Your task to perform on an android device: Clear the cart on amazon. Search for razer blackwidow on amazon, select the first entry, add it to the cart, then select checkout. Image 0: 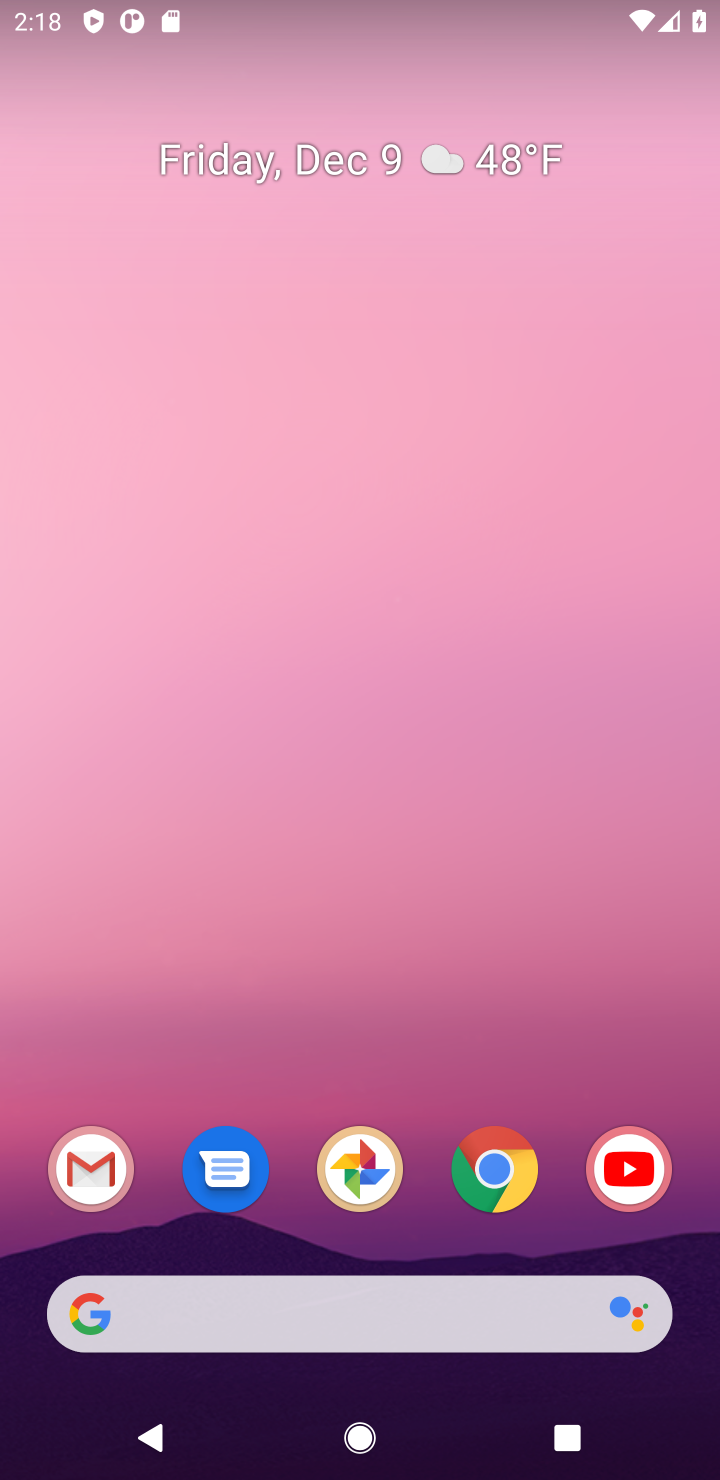
Step 0: click (498, 1177)
Your task to perform on an android device: Clear the cart on amazon. Search for razer blackwidow on amazon, select the first entry, add it to the cart, then select checkout. Image 1: 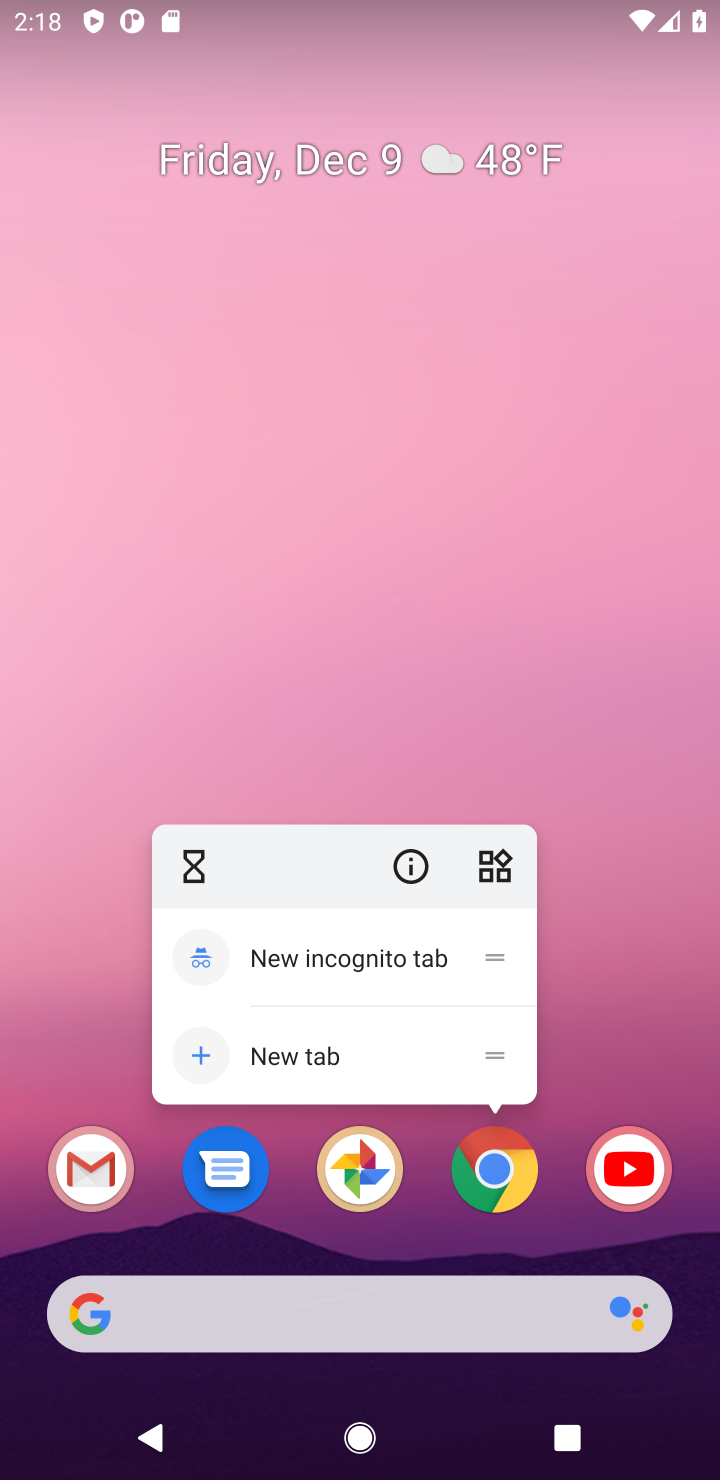
Step 1: click (498, 1177)
Your task to perform on an android device: Clear the cart on amazon. Search for razer blackwidow on amazon, select the first entry, add it to the cart, then select checkout. Image 2: 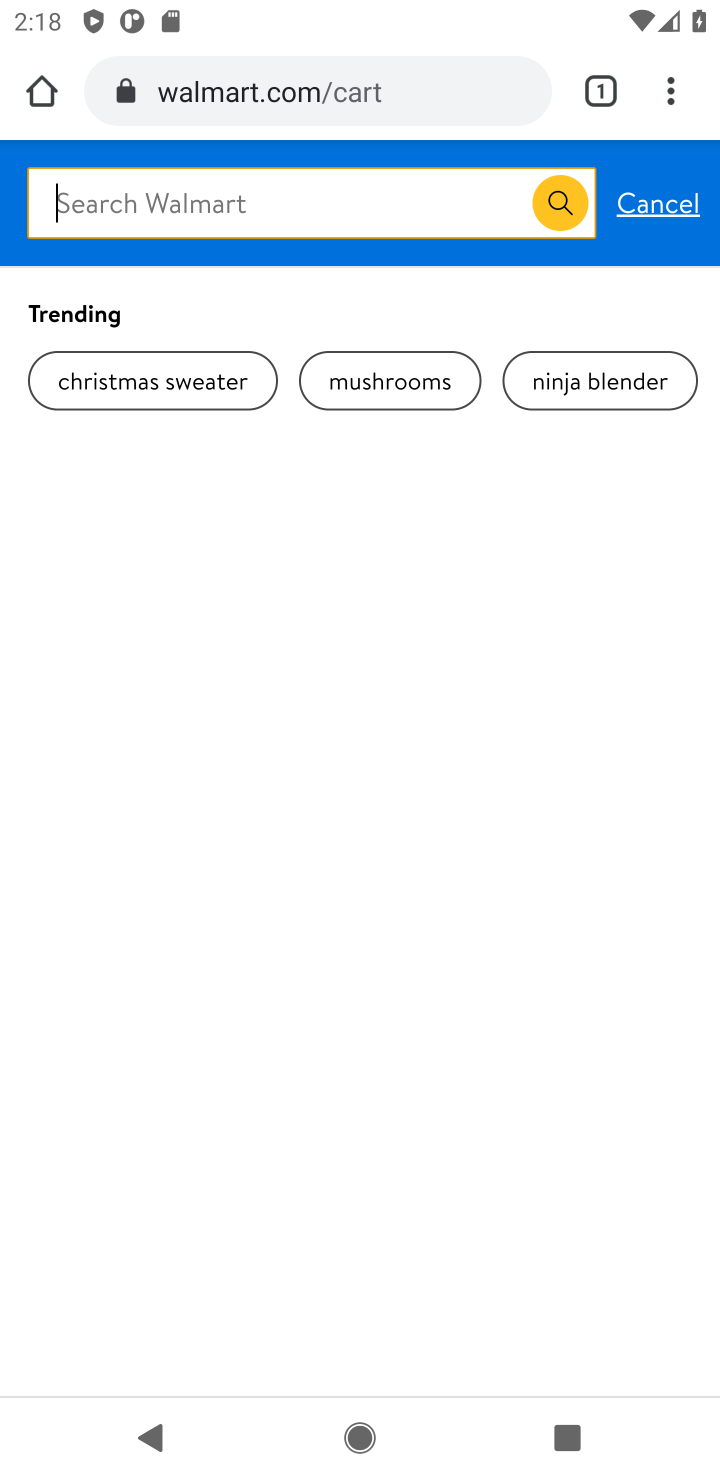
Step 2: click (252, 83)
Your task to perform on an android device: Clear the cart on amazon. Search for razer blackwidow on amazon, select the first entry, add it to the cart, then select checkout. Image 3: 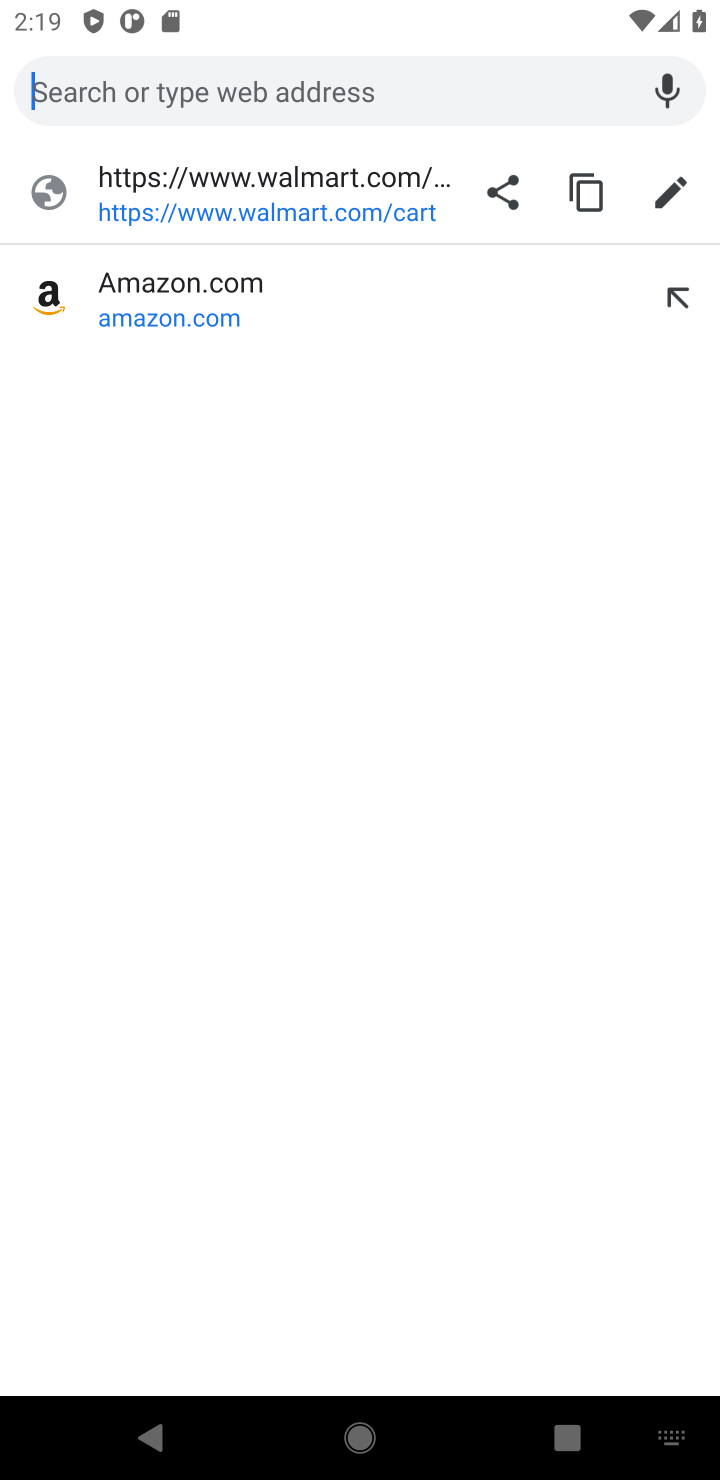
Step 3: click (221, 291)
Your task to perform on an android device: Clear the cart on amazon. Search for razer blackwidow on amazon, select the first entry, add it to the cart, then select checkout. Image 4: 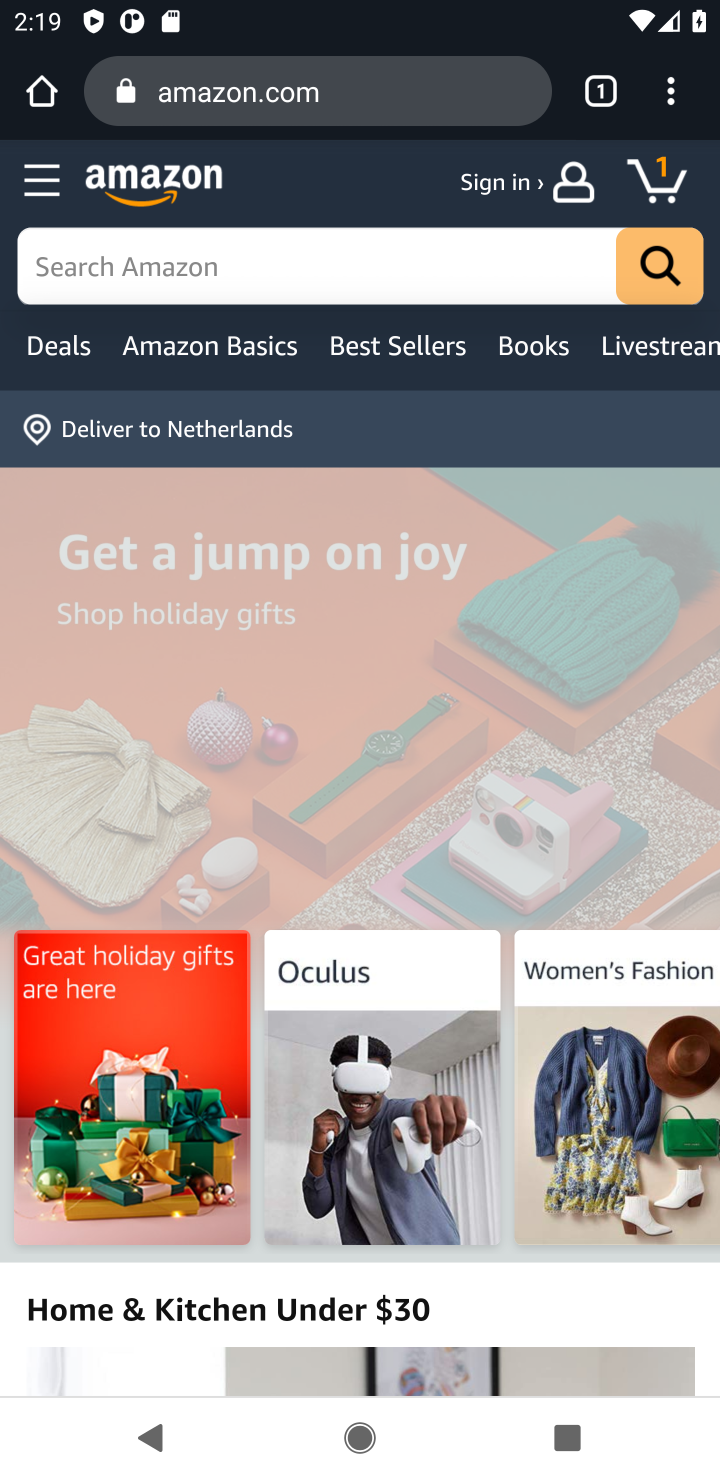
Step 4: click (668, 182)
Your task to perform on an android device: Clear the cart on amazon. Search for razer blackwidow on amazon, select the first entry, add it to the cart, then select checkout. Image 5: 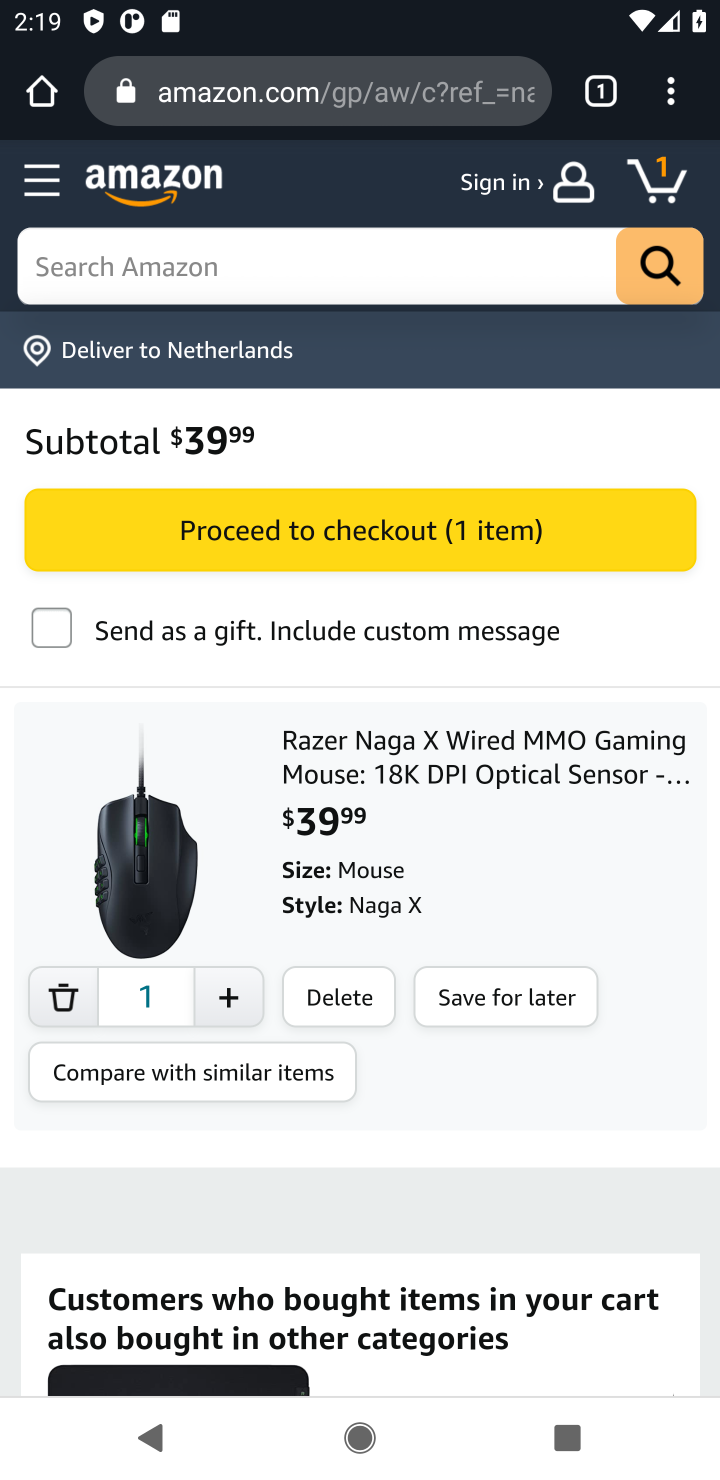
Step 5: click (340, 995)
Your task to perform on an android device: Clear the cart on amazon. Search for razer blackwidow on amazon, select the first entry, add it to the cart, then select checkout. Image 6: 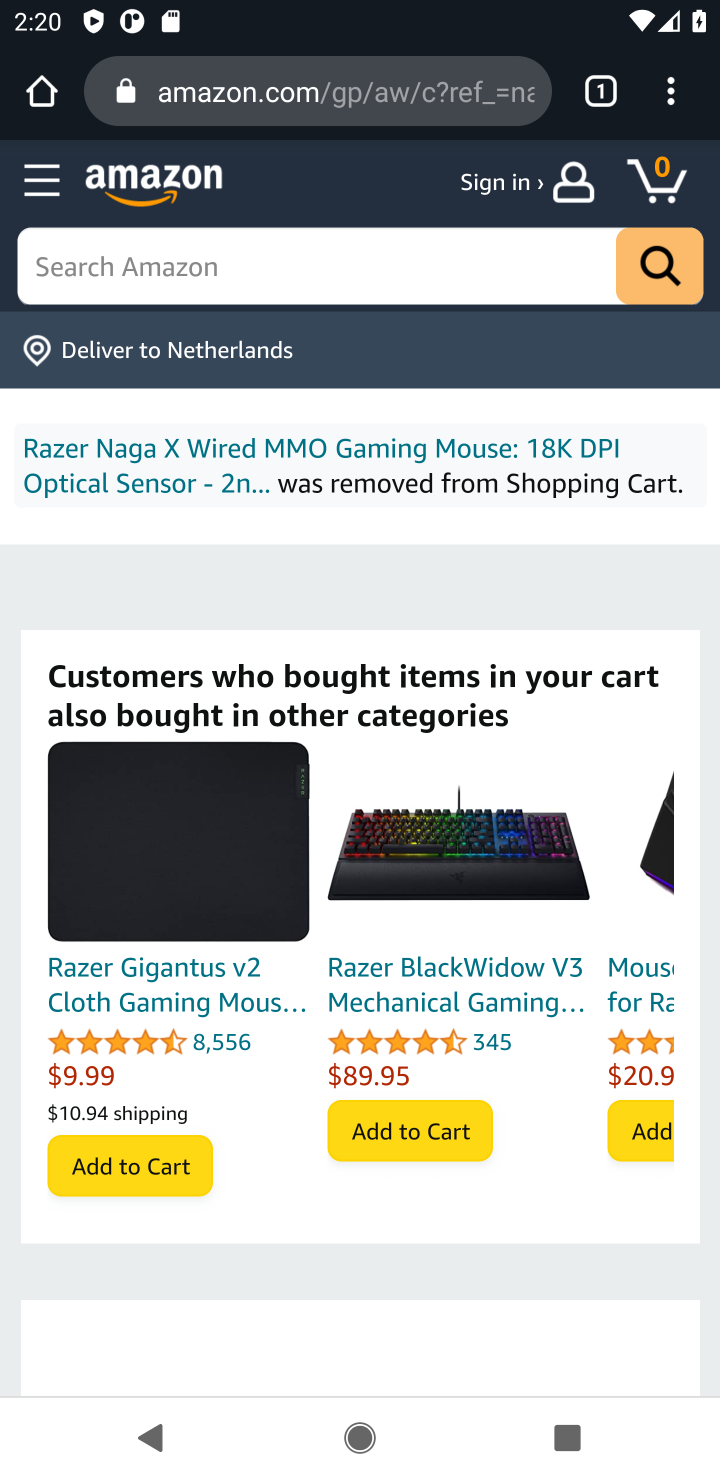
Step 6: click (573, 278)
Your task to perform on an android device: Clear the cart on amazon. Search for razer blackwidow on amazon, select the first entry, add it to the cart, then select checkout. Image 7: 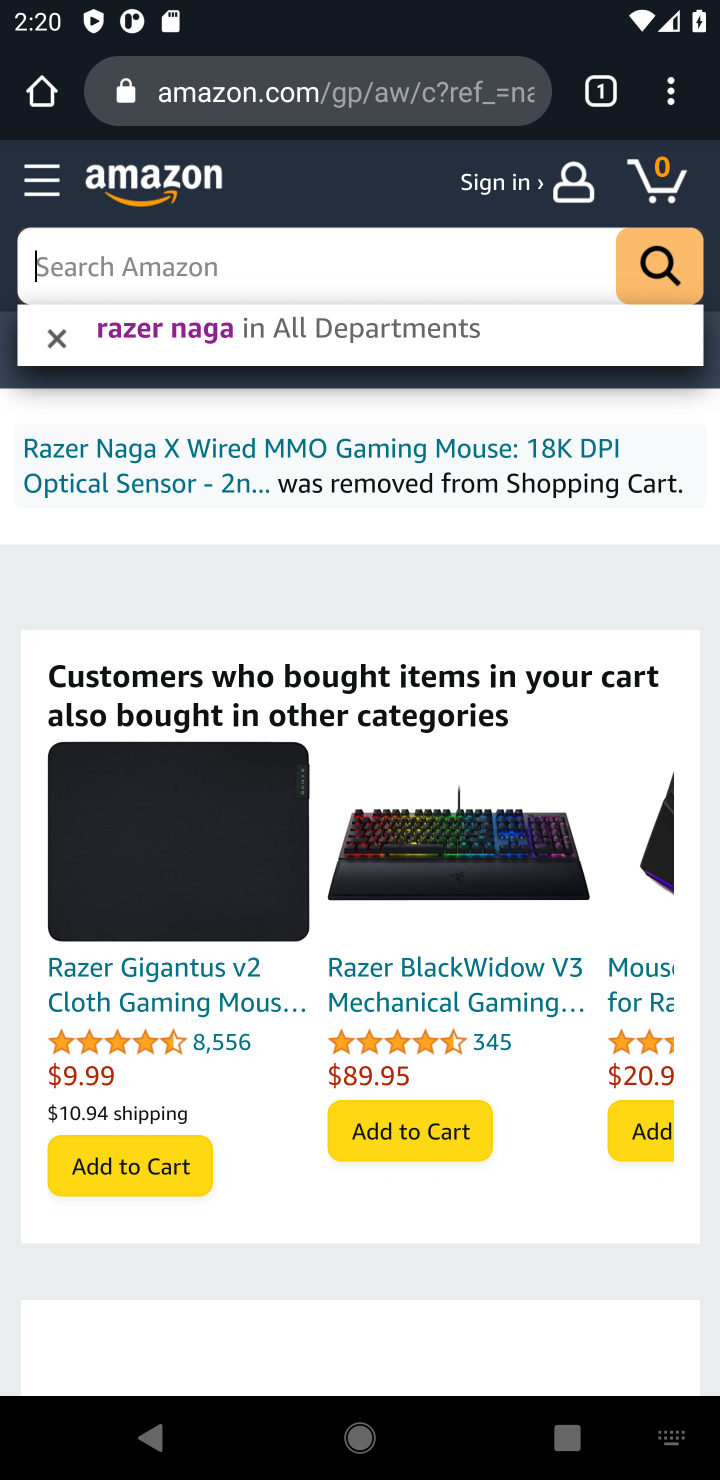
Step 7: press enter
Your task to perform on an android device: Clear the cart on amazon. Search for razer blackwidow on amazon, select the first entry, add it to the cart, then select checkout. Image 8: 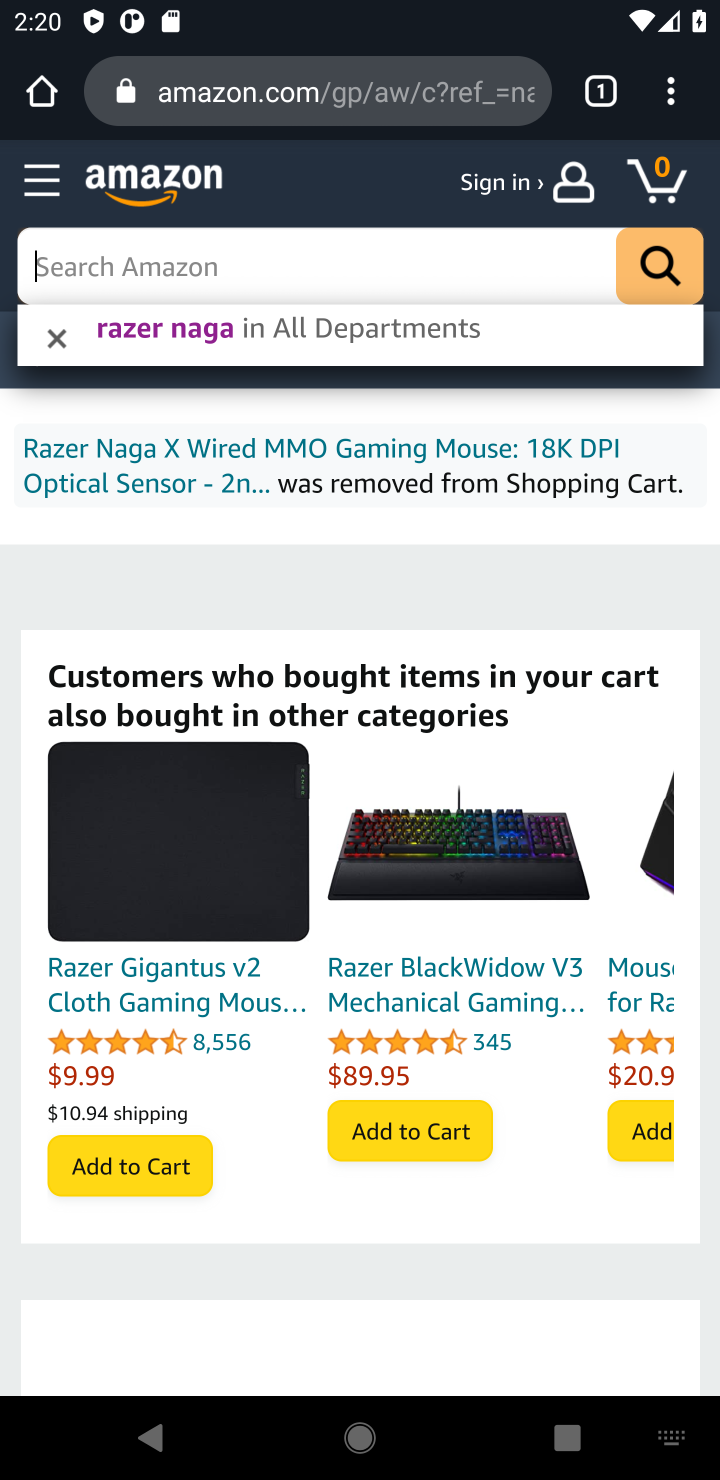
Step 8: type "razer blackwidow"
Your task to perform on an android device: Clear the cart on amazon. Search for razer blackwidow on amazon, select the first entry, add it to the cart, then select checkout. Image 9: 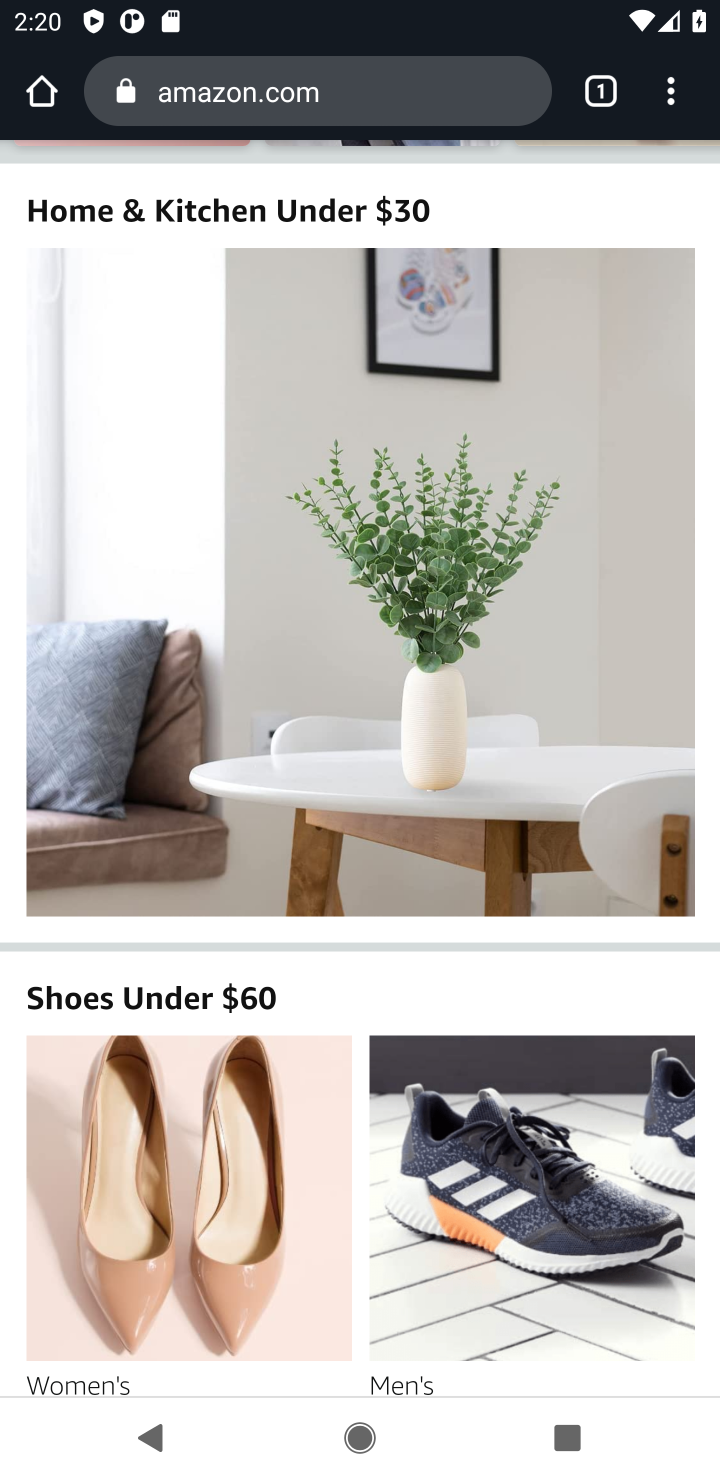
Step 9: press back button
Your task to perform on an android device: Clear the cart on amazon. Search for razer blackwidow on amazon, select the first entry, add it to the cart, then select checkout. Image 10: 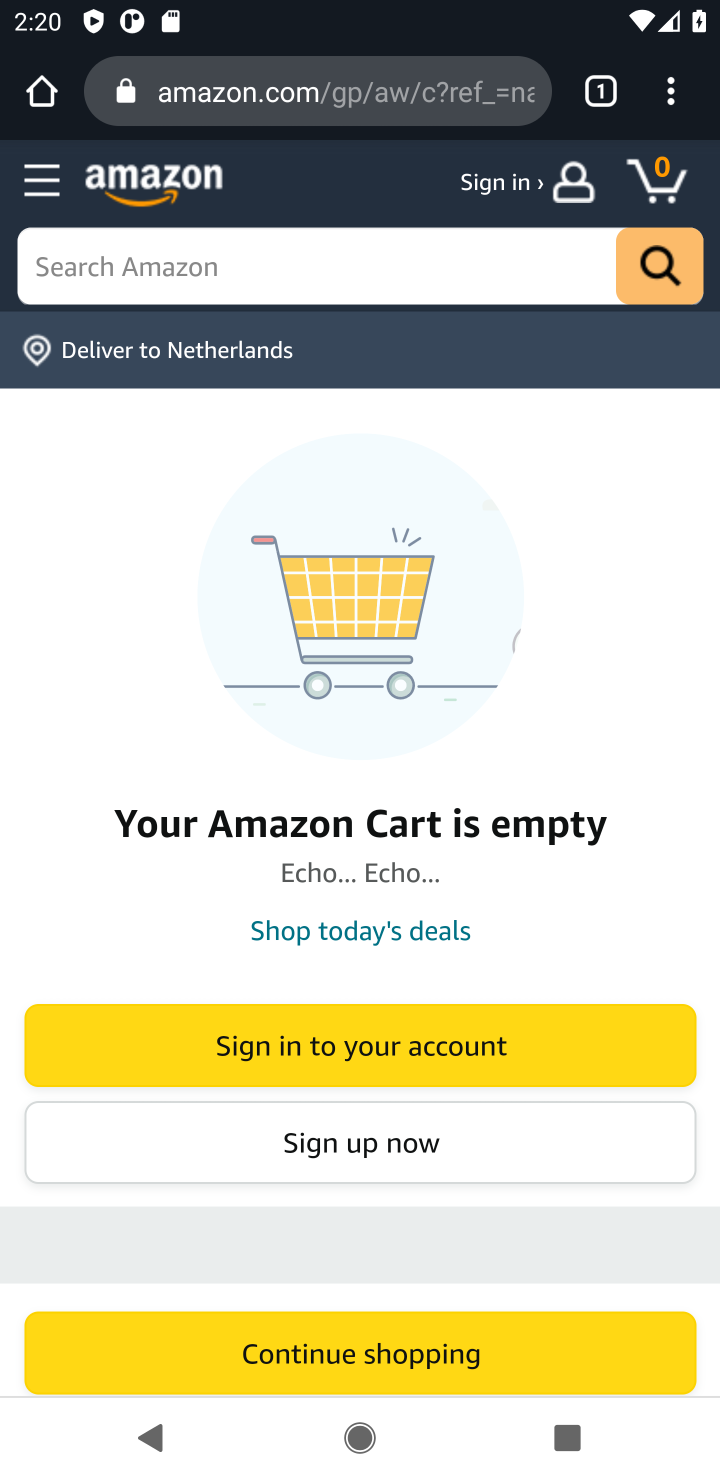
Step 10: click (574, 272)
Your task to perform on an android device: Clear the cart on amazon. Search for razer blackwidow on amazon, select the first entry, add it to the cart, then select checkout. Image 11: 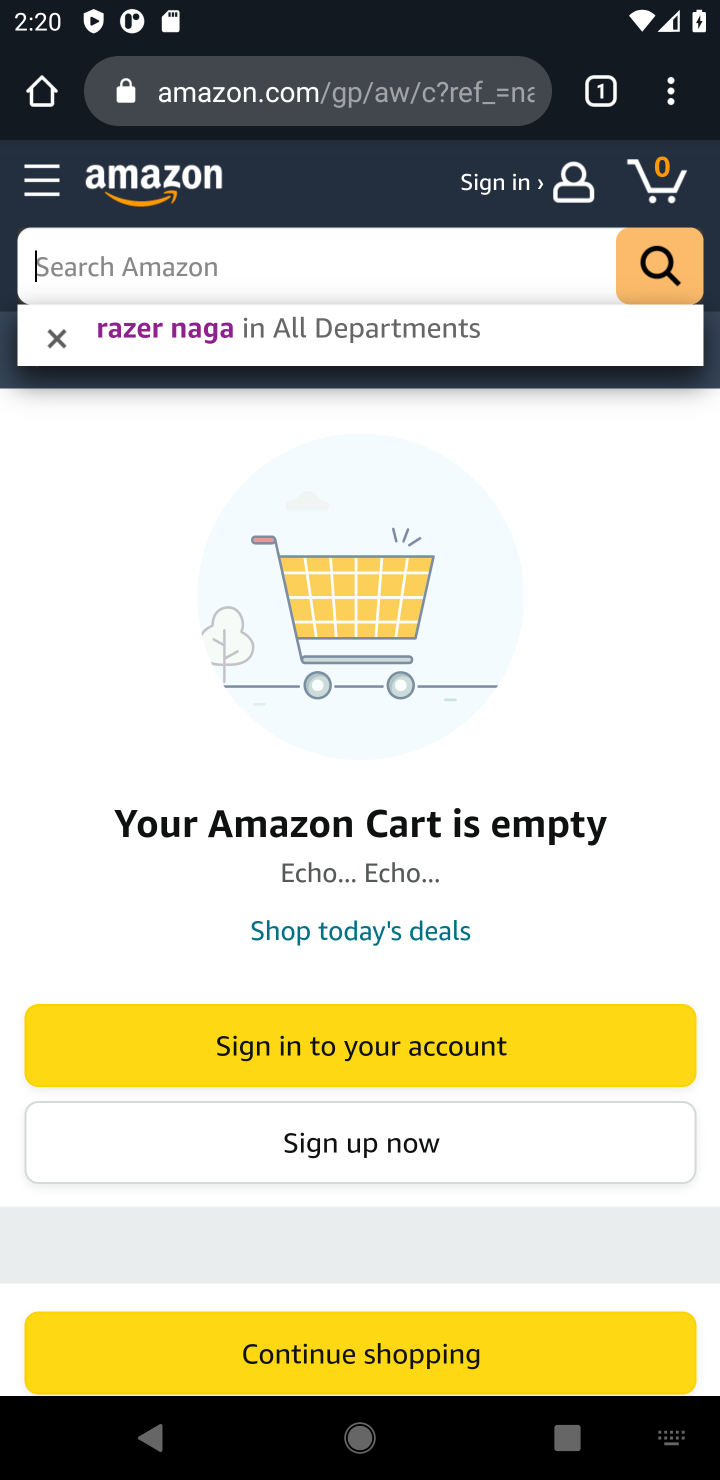
Step 11: press enter
Your task to perform on an android device: Clear the cart on amazon. Search for razer blackwidow on amazon, select the first entry, add it to the cart, then select checkout. Image 12: 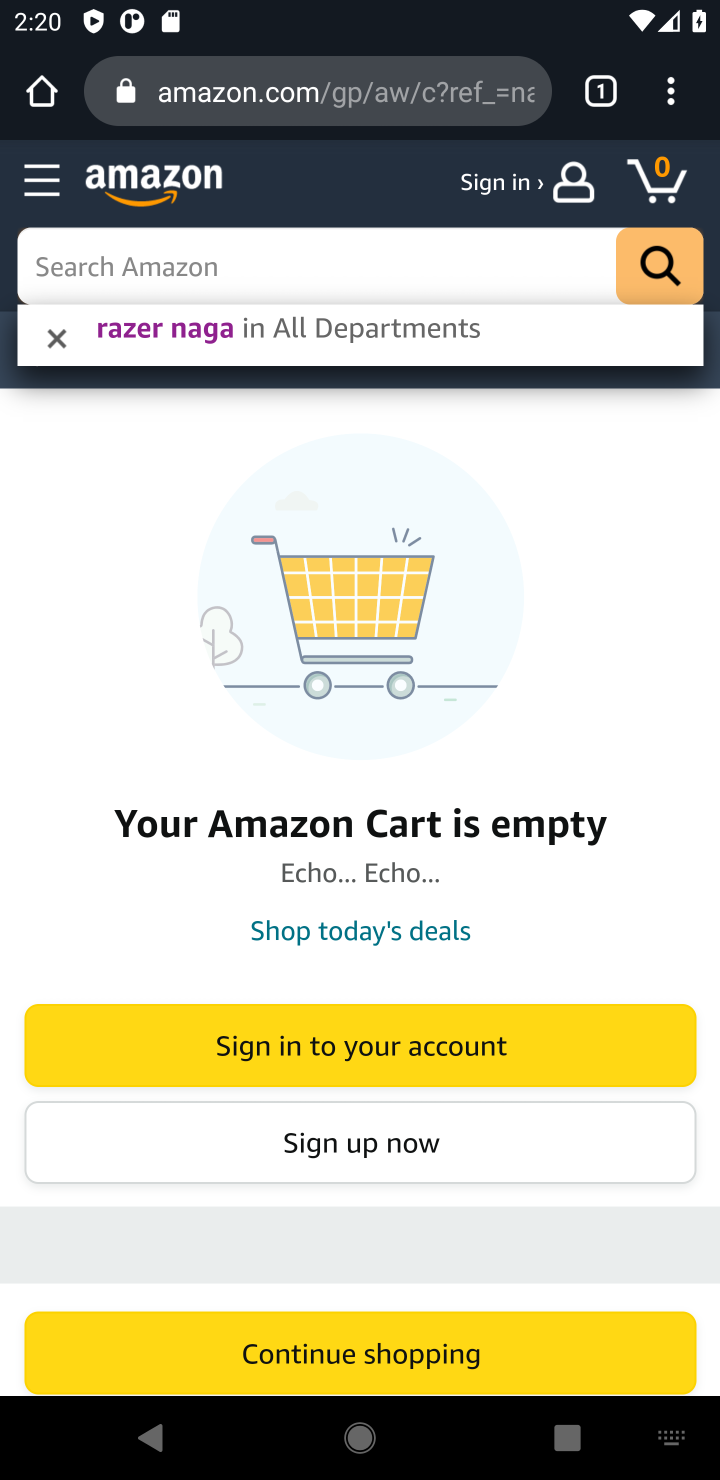
Step 12: type "razer blackwidow"
Your task to perform on an android device: Clear the cart on amazon. Search for razer blackwidow on amazon, select the first entry, add it to the cart, then select checkout. Image 13: 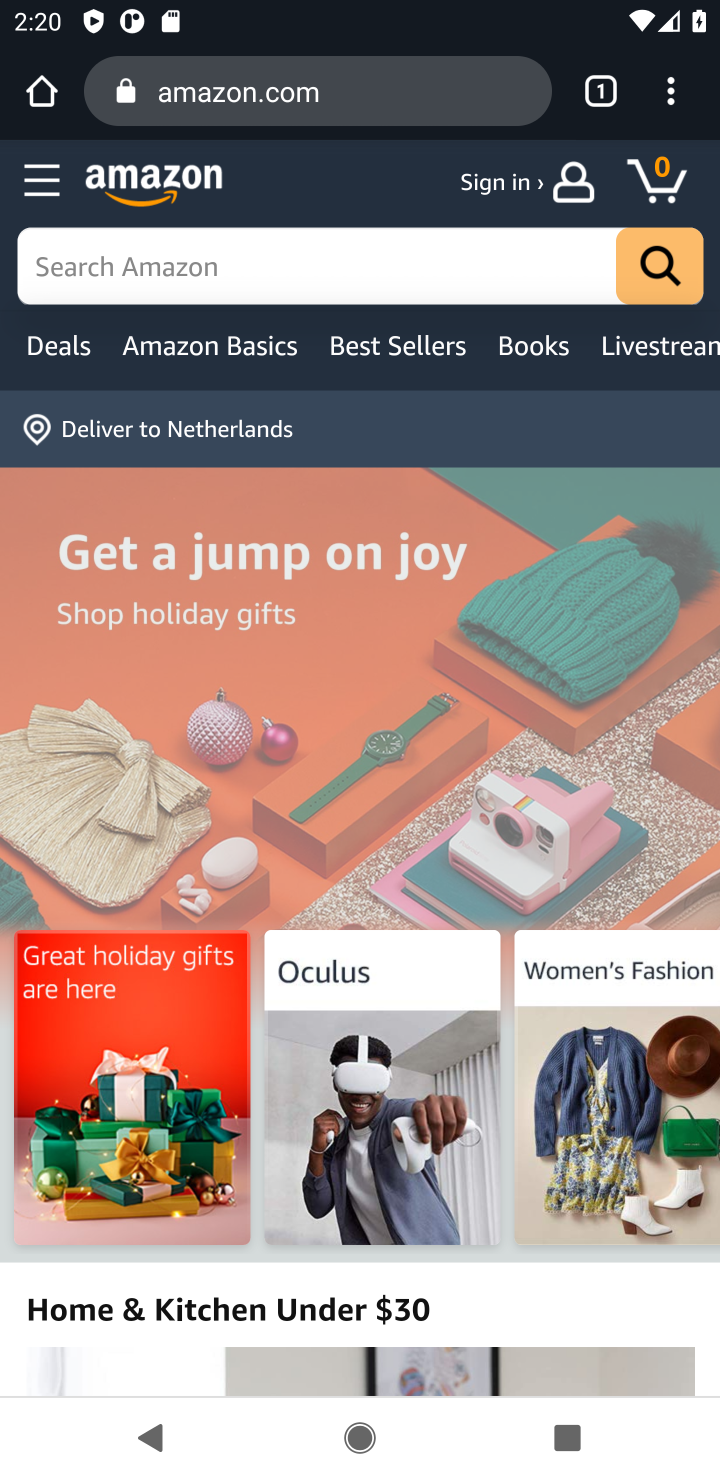
Step 13: click (264, 270)
Your task to perform on an android device: Clear the cart on amazon. Search for razer blackwidow on amazon, select the first entry, add it to the cart, then select checkout. Image 14: 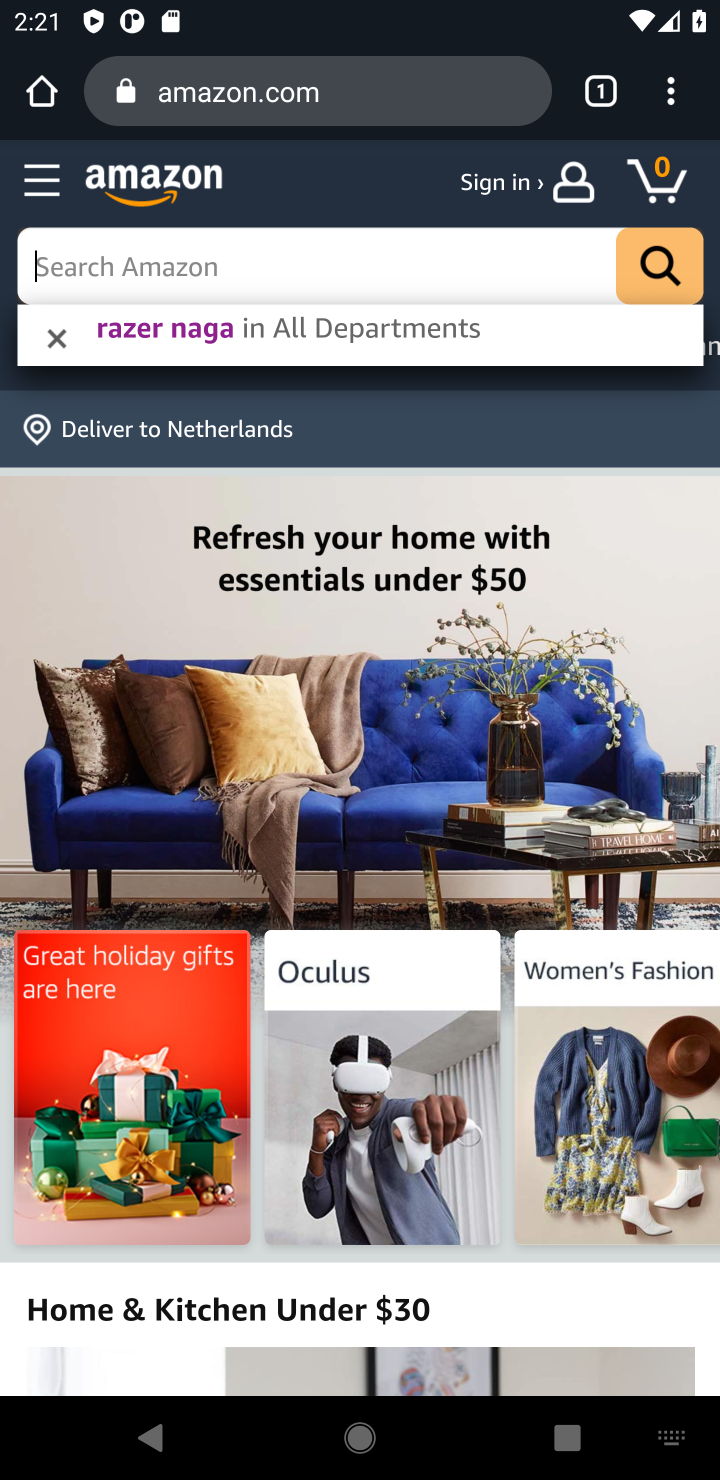
Step 14: press enter
Your task to perform on an android device: Clear the cart on amazon. Search for razer blackwidow on amazon, select the first entry, add it to the cart, then select checkout. Image 15: 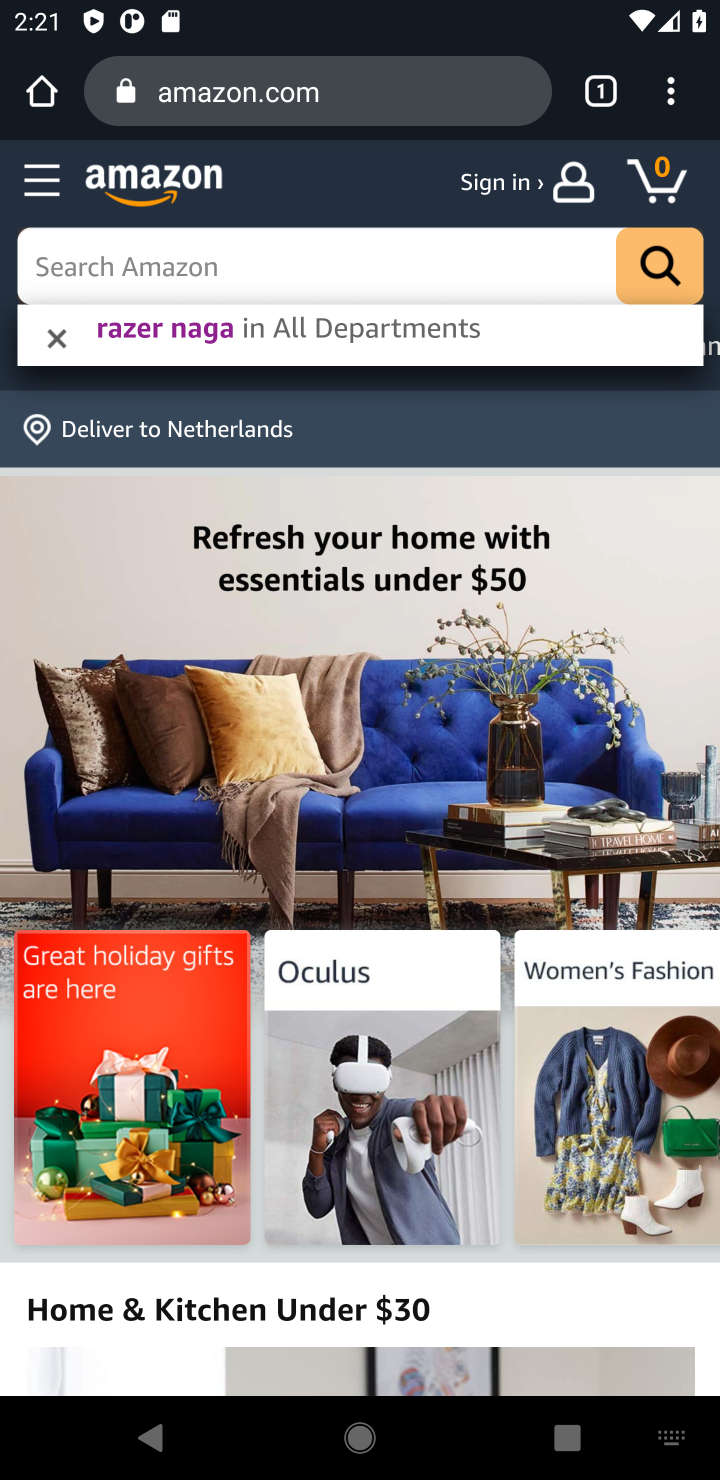
Step 15: type "razer blackwidow"
Your task to perform on an android device: Clear the cart on amazon. Search for razer blackwidow on amazon, select the first entry, add it to the cart, then select checkout. Image 16: 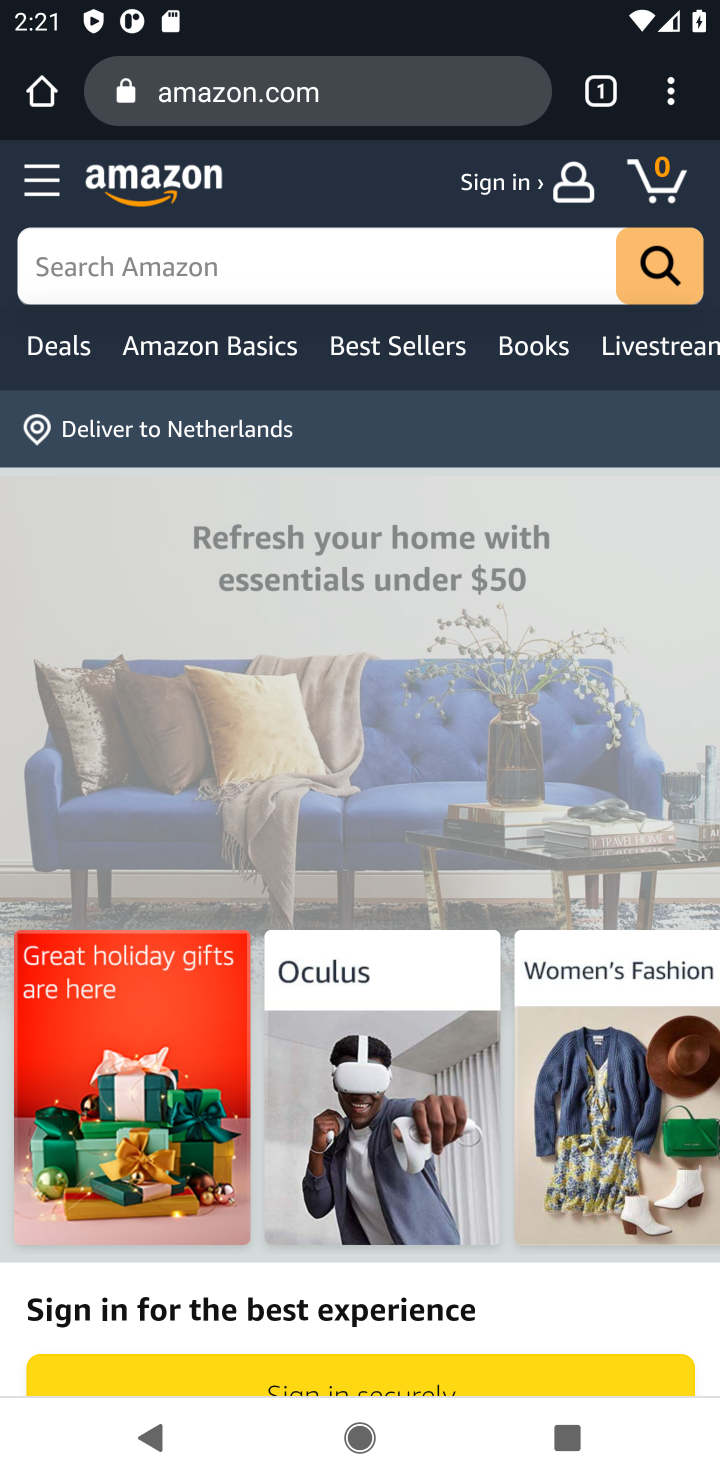
Step 16: press enter
Your task to perform on an android device: Clear the cart on amazon. Search for razer blackwidow on amazon, select the first entry, add it to the cart, then select checkout. Image 17: 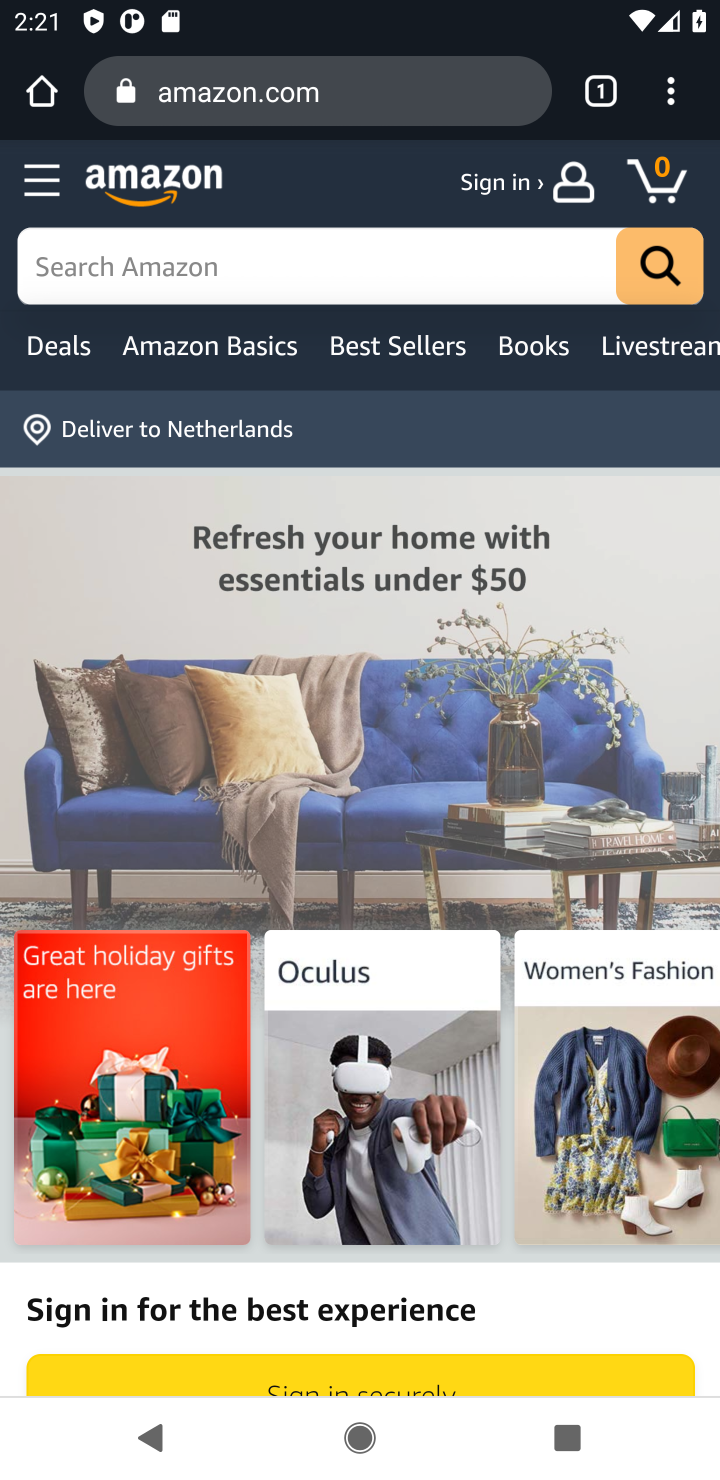
Step 17: type "razer blackwidow"
Your task to perform on an android device: Clear the cart on amazon. Search for razer blackwidow on amazon, select the first entry, add it to the cart, then select checkout. Image 18: 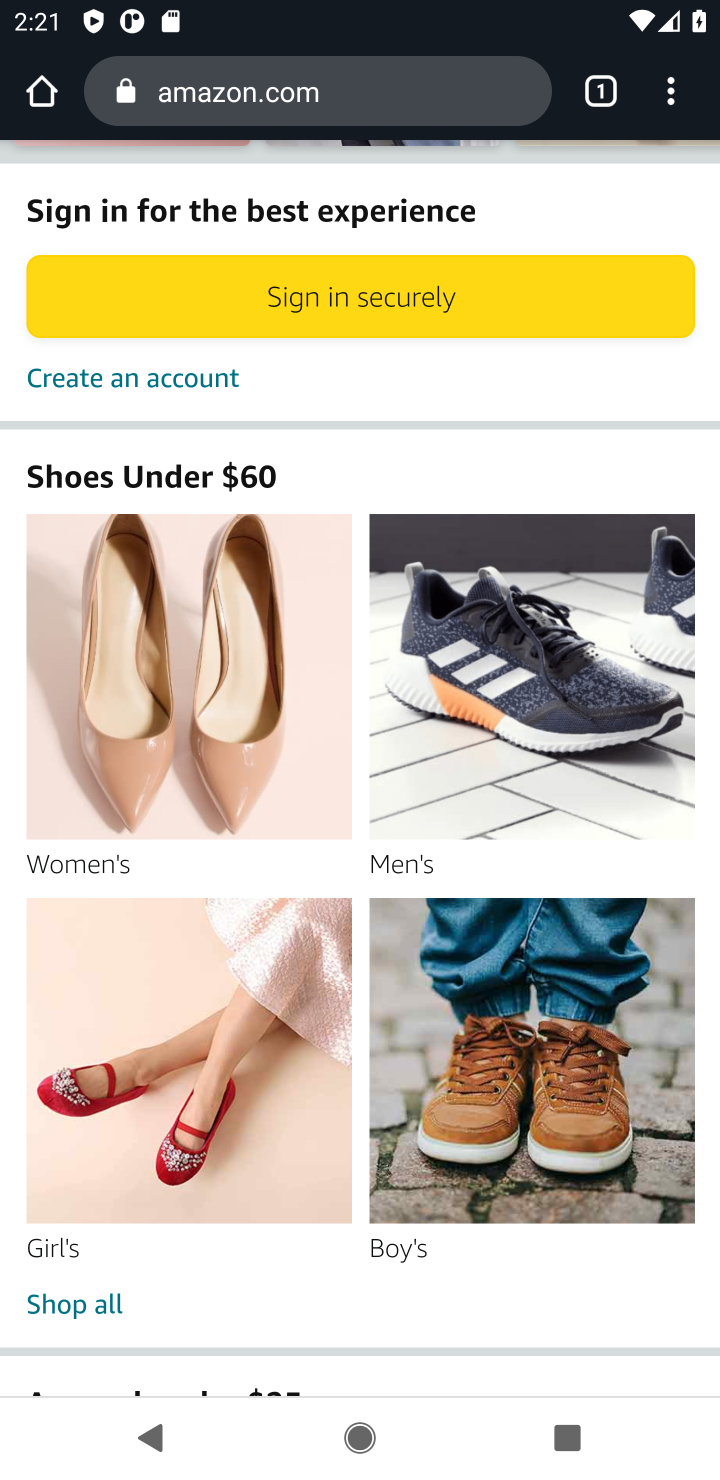
Step 18: task complete